Your task to perform on an android device: Open settings Image 0: 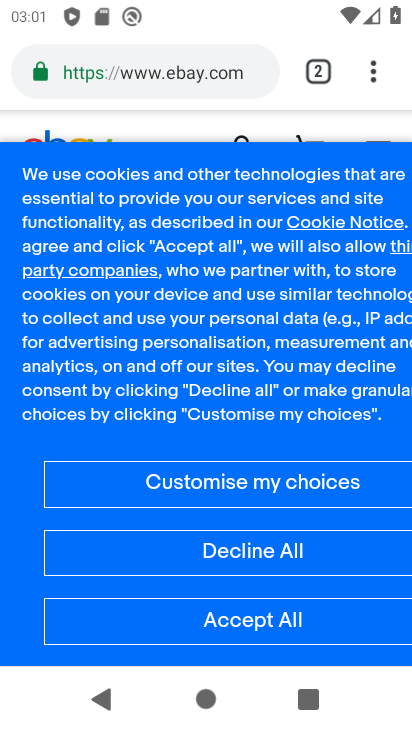
Step 0: press home button
Your task to perform on an android device: Open settings Image 1: 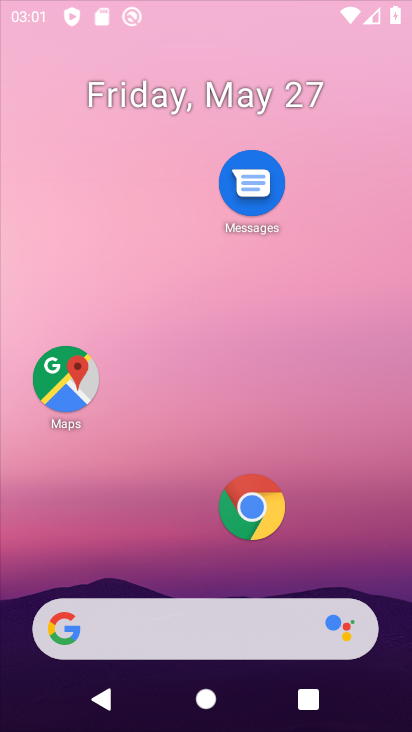
Step 1: drag from (217, 635) to (264, 86)
Your task to perform on an android device: Open settings Image 2: 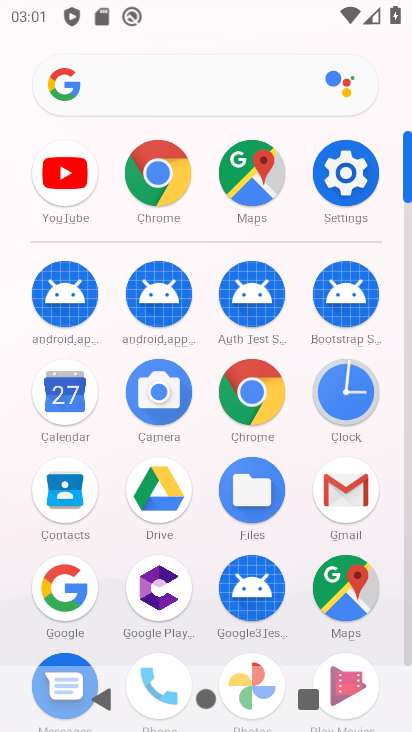
Step 2: click (354, 175)
Your task to perform on an android device: Open settings Image 3: 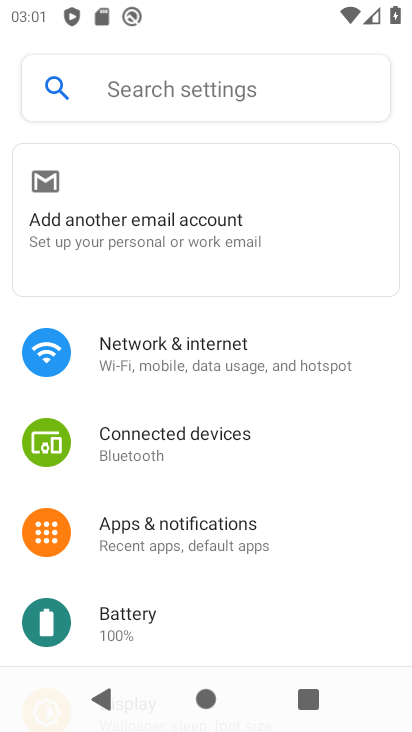
Step 3: task complete